Your task to perform on an android device: check data usage Image 0: 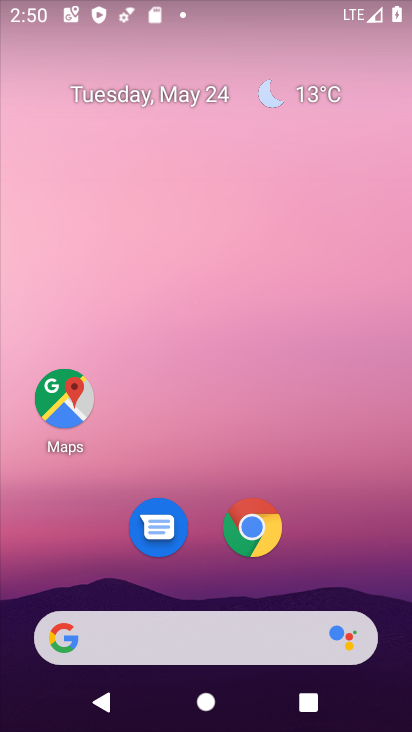
Step 0: drag from (325, 572) to (334, 8)
Your task to perform on an android device: check data usage Image 1: 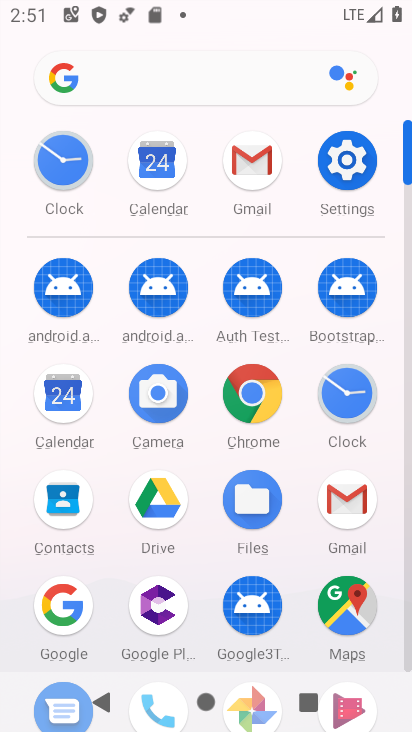
Step 1: click (334, 159)
Your task to perform on an android device: check data usage Image 2: 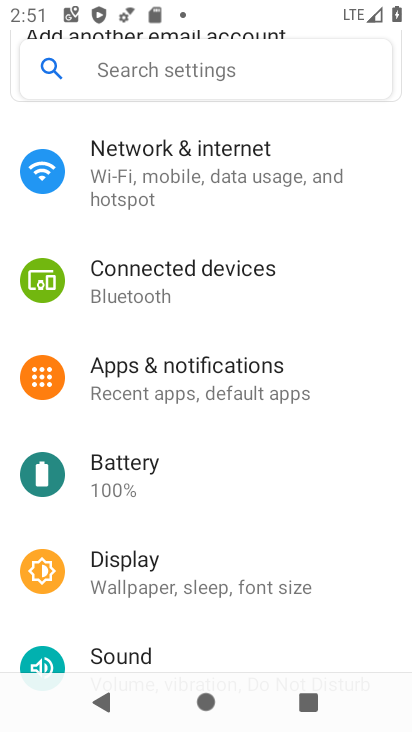
Step 2: click (233, 181)
Your task to perform on an android device: check data usage Image 3: 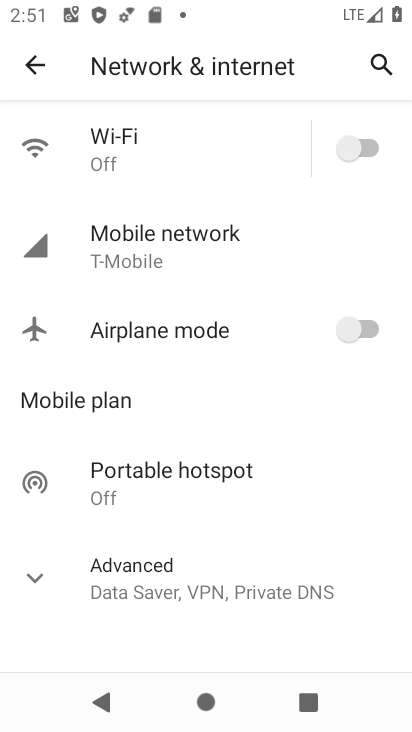
Step 3: click (159, 246)
Your task to perform on an android device: check data usage Image 4: 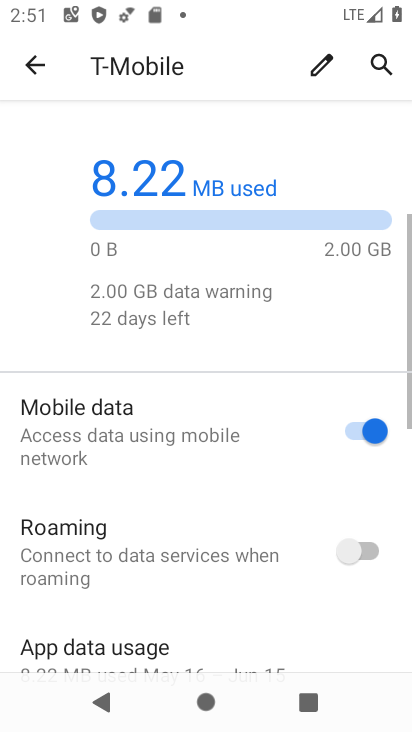
Step 4: drag from (133, 590) to (165, 251)
Your task to perform on an android device: check data usage Image 5: 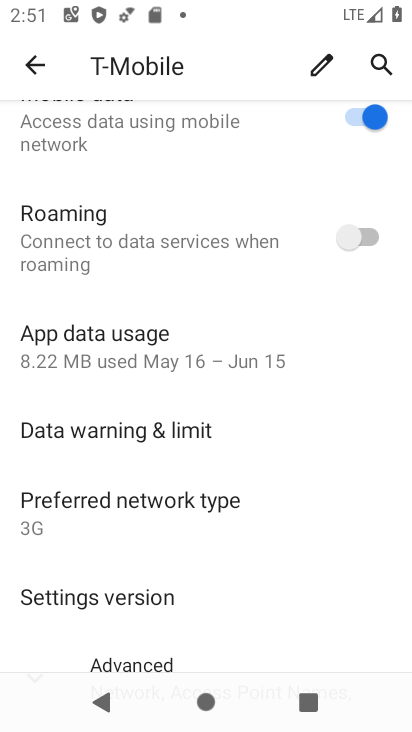
Step 5: click (109, 359)
Your task to perform on an android device: check data usage Image 6: 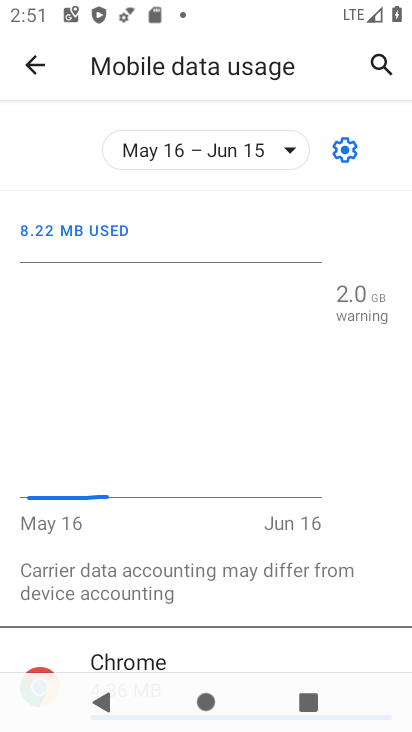
Step 6: task complete